Your task to perform on an android device: Go to notification settings Image 0: 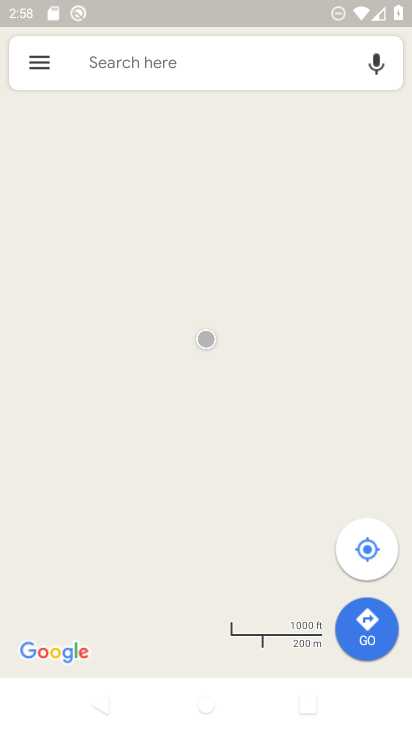
Step 0: press back button
Your task to perform on an android device: Go to notification settings Image 1: 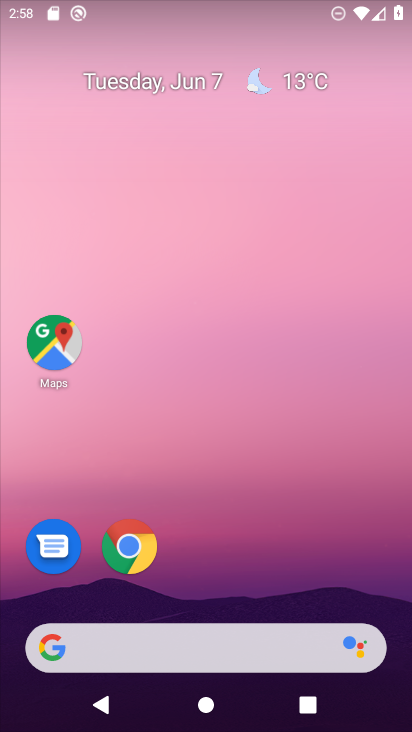
Step 1: drag from (221, 590) to (209, 0)
Your task to perform on an android device: Go to notification settings Image 2: 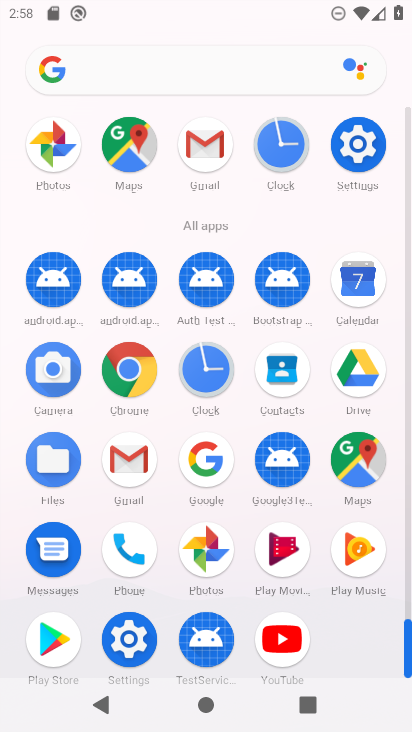
Step 2: click (128, 635)
Your task to perform on an android device: Go to notification settings Image 3: 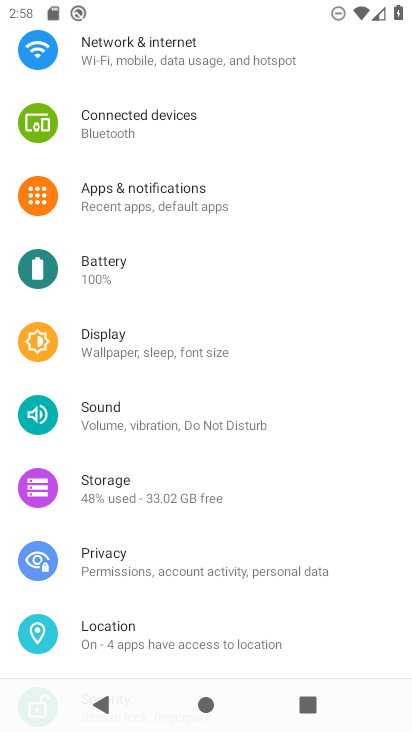
Step 3: click (174, 186)
Your task to perform on an android device: Go to notification settings Image 4: 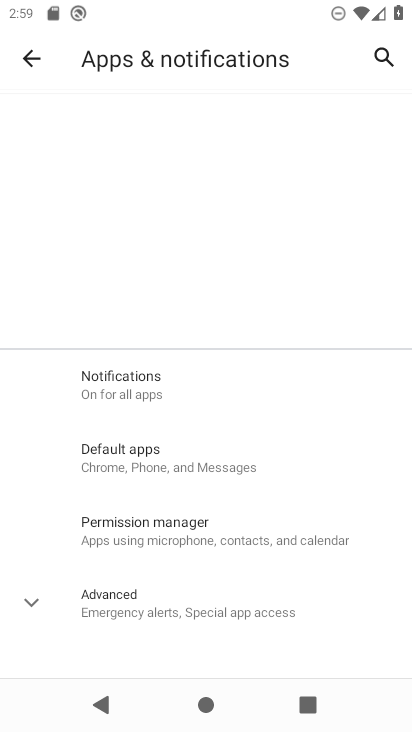
Step 4: click (27, 587)
Your task to perform on an android device: Go to notification settings Image 5: 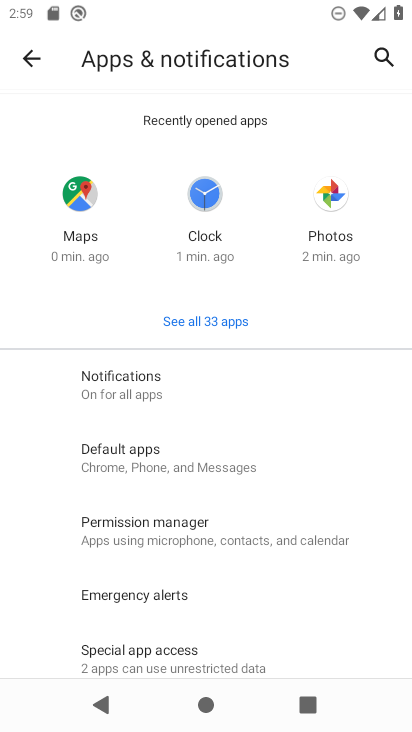
Step 5: click (180, 380)
Your task to perform on an android device: Go to notification settings Image 6: 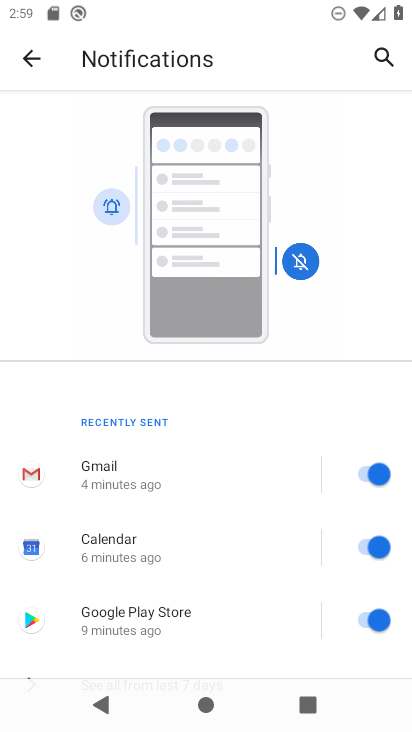
Step 6: drag from (268, 539) to (266, 120)
Your task to perform on an android device: Go to notification settings Image 7: 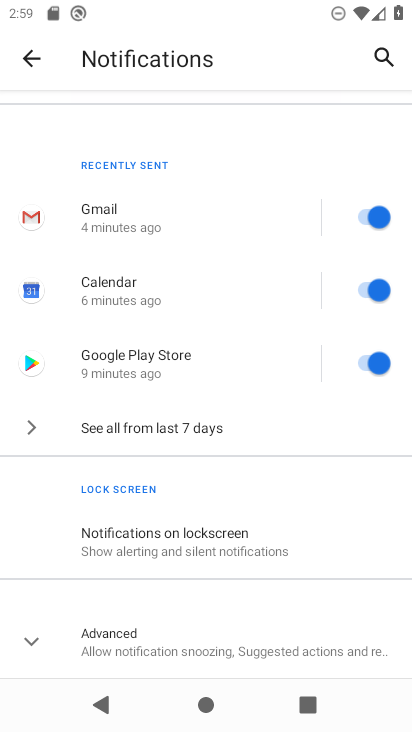
Step 7: click (25, 642)
Your task to perform on an android device: Go to notification settings Image 8: 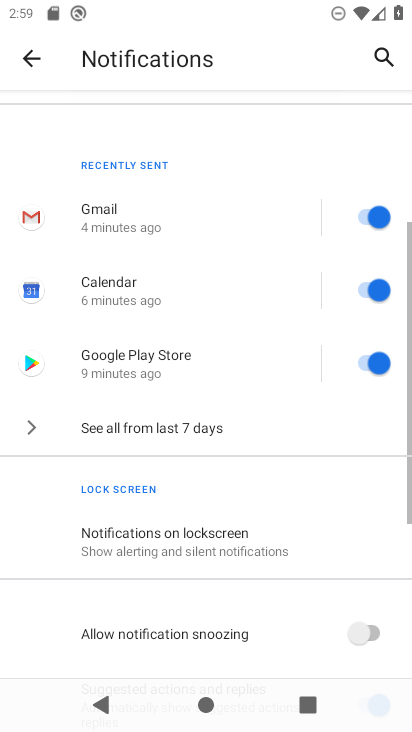
Step 8: task complete